Your task to perform on an android device: open app "VLC for Android" (install if not already installed) Image 0: 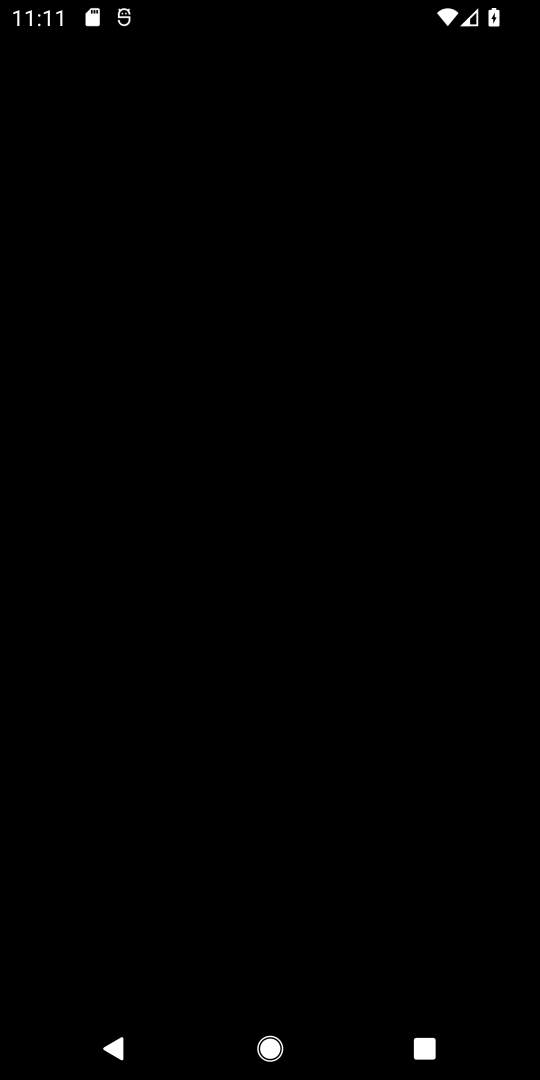
Step 0: press home button
Your task to perform on an android device: open app "VLC for Android" (install if not already installed) Image 1: 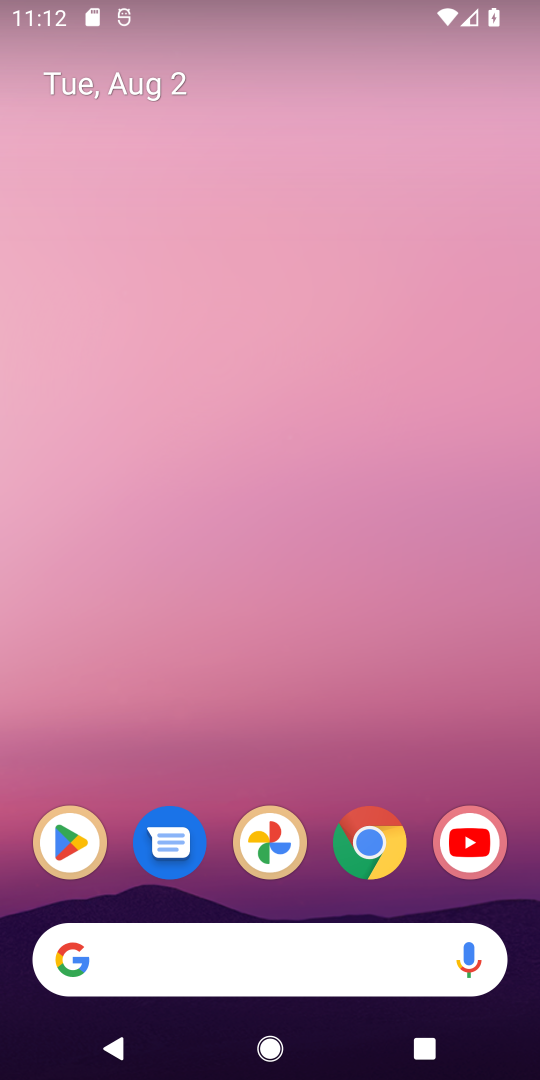
Step 1: click (108, 852)
Your task to perform on an android device: open app "VLC for Android" (install if not already installed) Image 2: 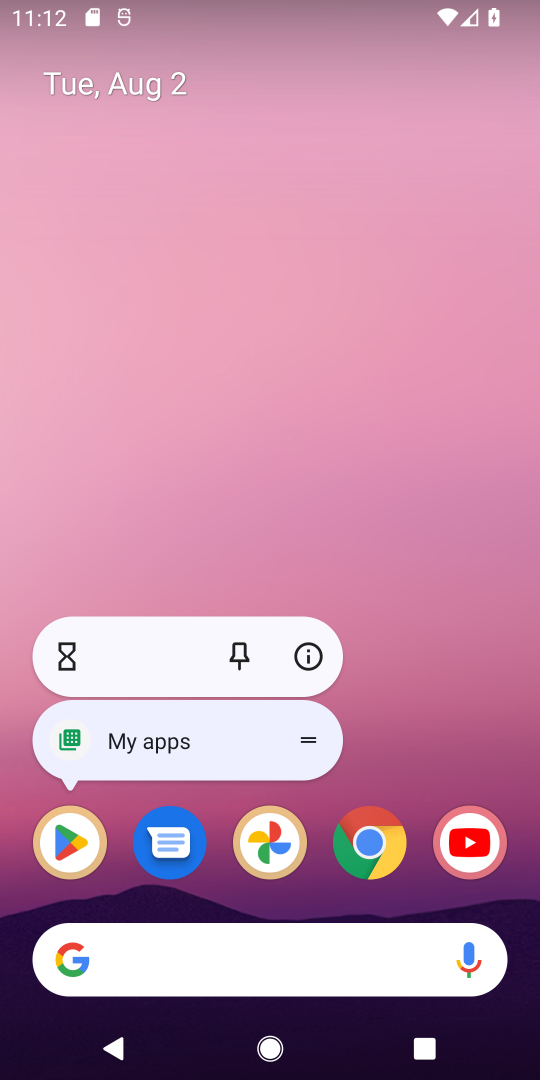
Step 2: click (97, 852)
Your task to perform on an android device: open app "VLC for Android" (install if not already installed) Image 3: 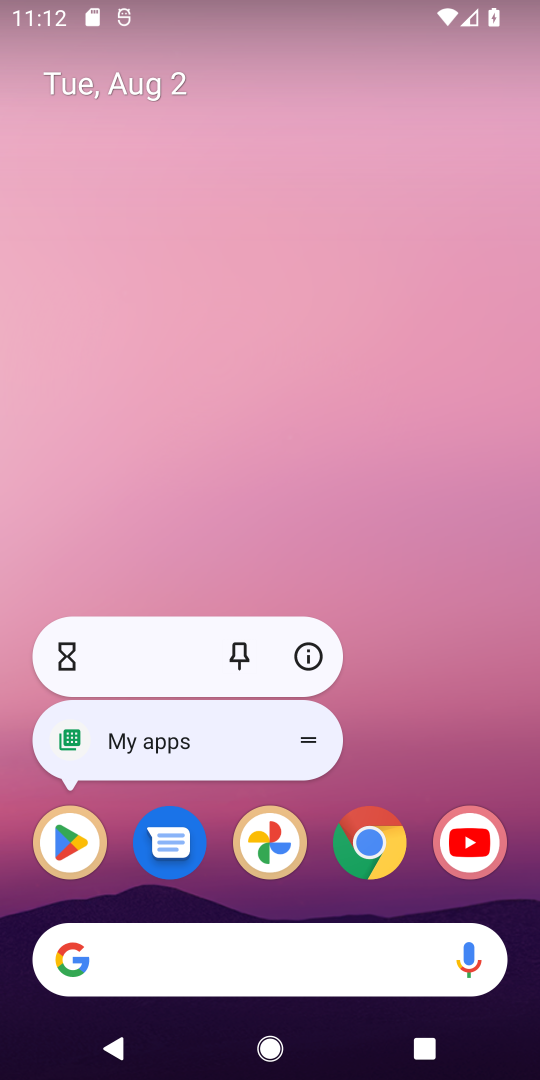
Step 3: click (97, 852)
Your task to perform on an android device: open app "VLC for Android" (install if not already installed) Image 4: 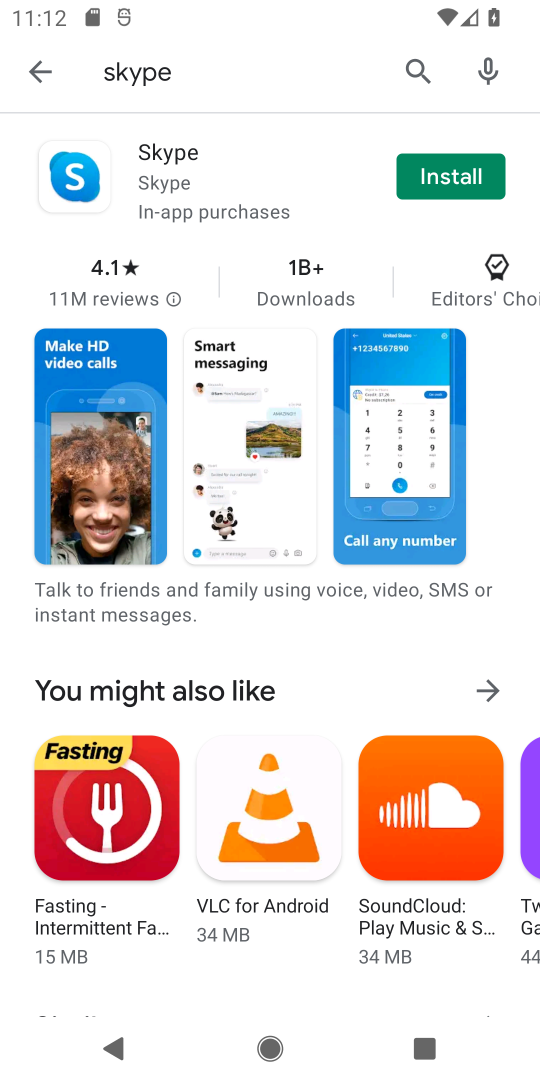
Step 4: click (425, 79)
Your task to perform on an android device: open app "VLC for Android" (install if not already installed) Image 5: 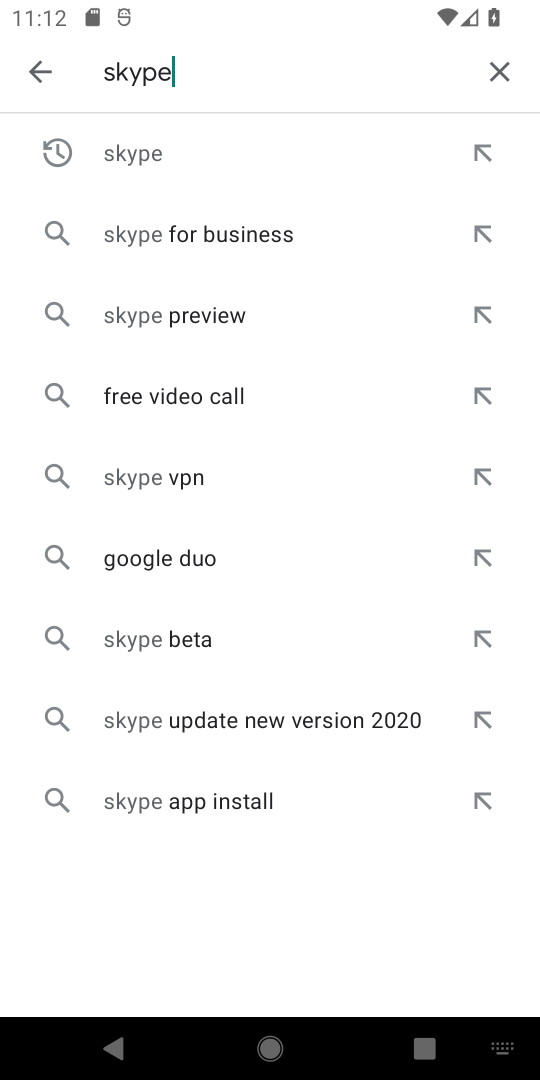
Step 5: click (517, 77)
Your task to perform on an android device: open app "VLC for Android" (install if not already installed) Image 6: 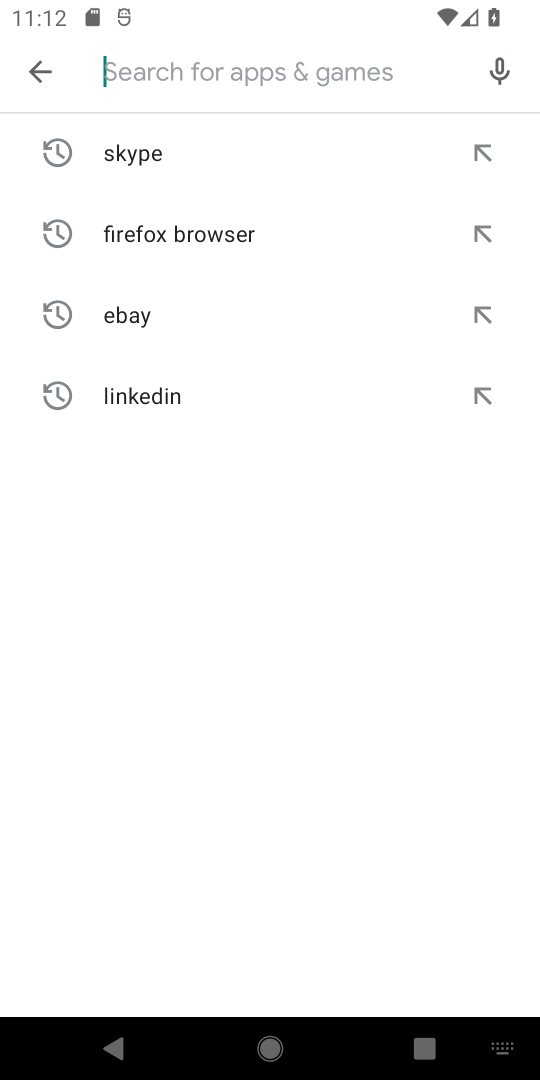
Step 6: click (315, 67)
Your task to perform on an android device: open app "VLC for Android" (install if not already installed) Image 7: 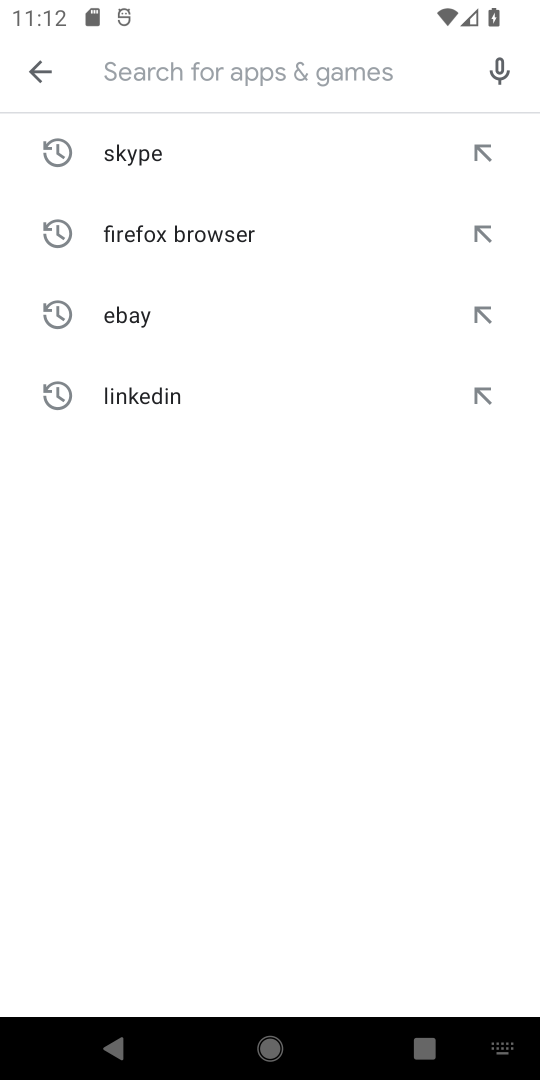
Step 7: type "VLC"
Your task to perform on an android device: open app "VLC for Android" (install if not already installed) Image 8: 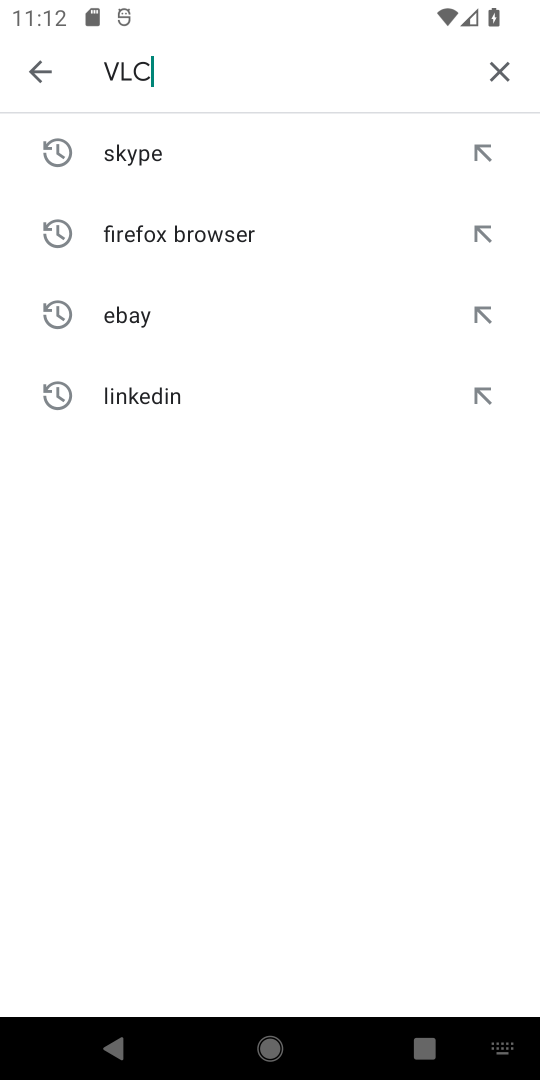
Step 8: type ""
Your task to perform on an android device: open app "VLC for Android" (install if not already installed) Image 9: 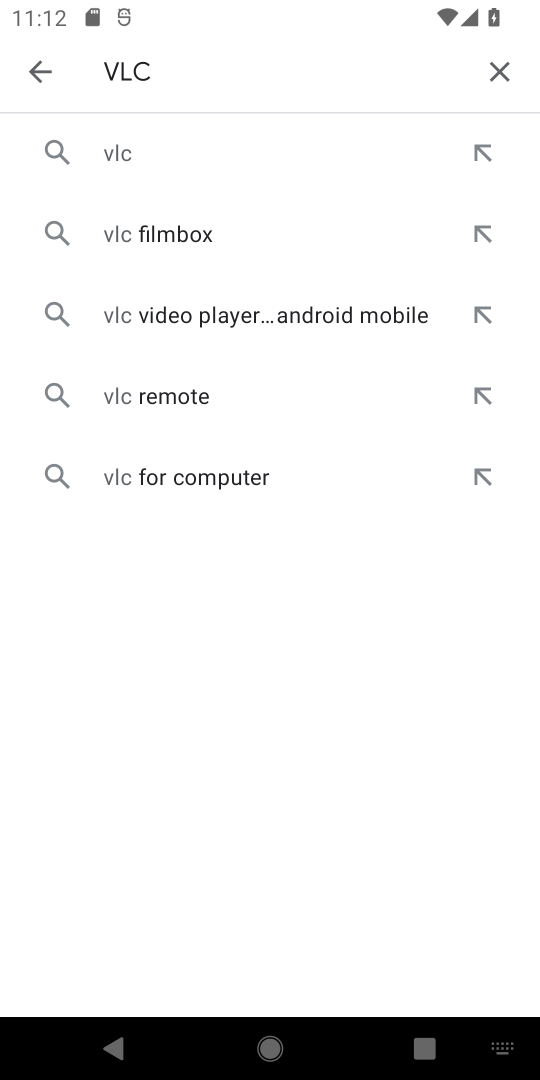
Step 9: click (101, 142)
Your task to perform on an android device: open app "VLC for Android" (install if not already installed) Image 10: 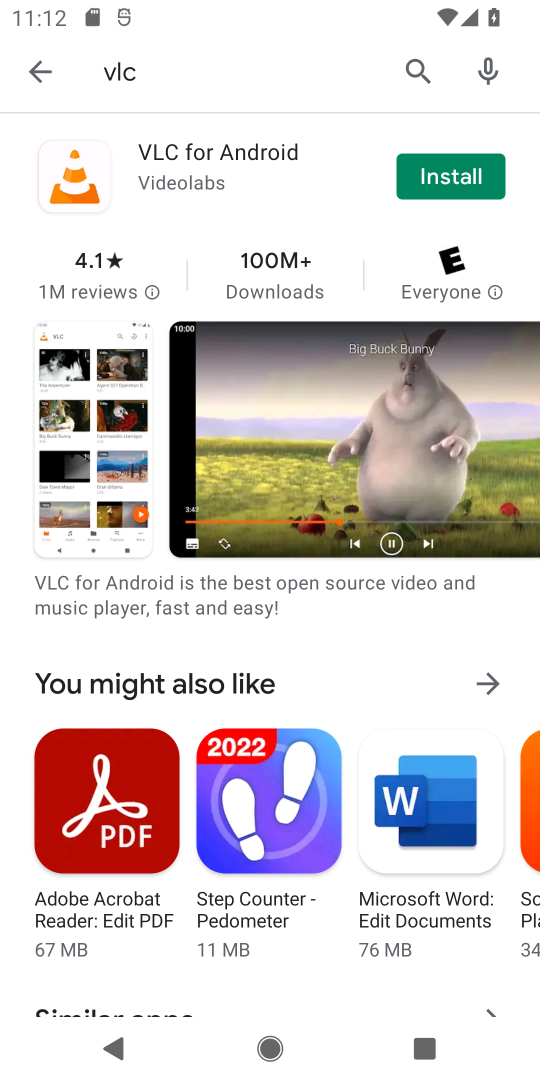
Step 10: click (458, 162)
Your task to perform on an android device: open app "VLC for Android" (install if not already installed) Image 11: 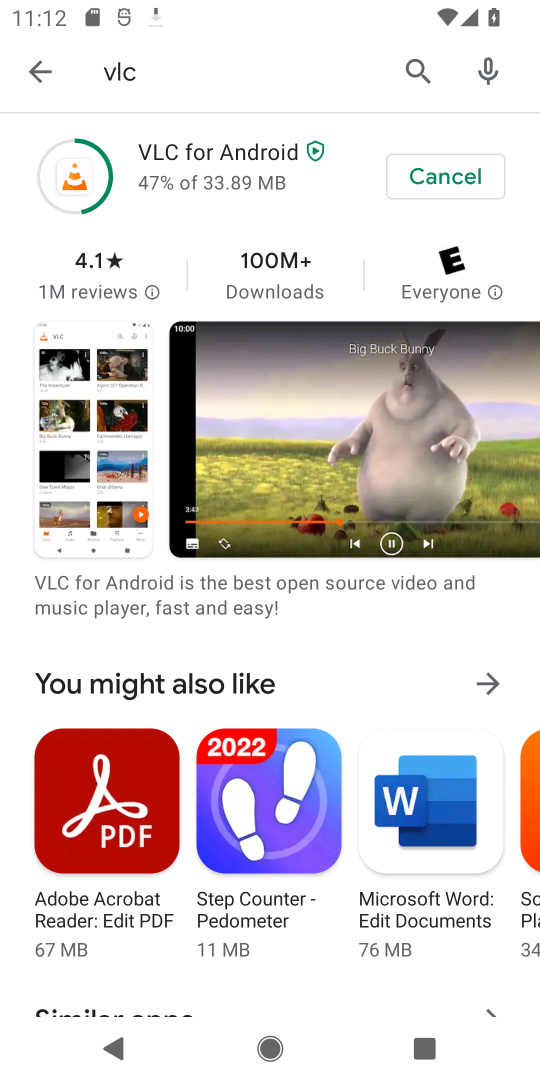
Step 11: click (258, 147)
Your task to perform on an android device: open app "VLC for Android" (install if not already installed) Image 12: 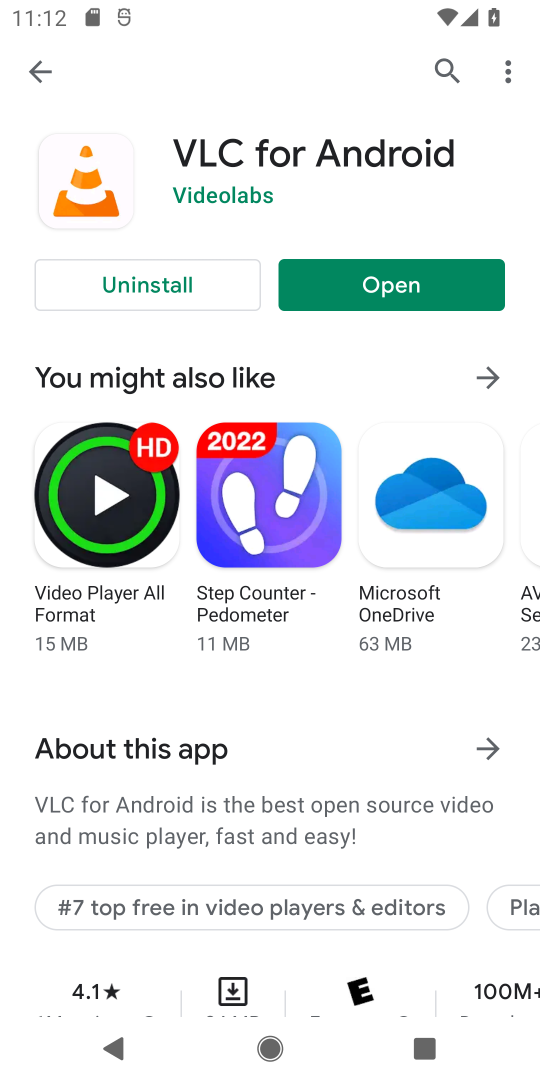
Step 12: click (400, 305)
Your task to perform on an android device: open app "VLC for Android" (install if not already installed) Image 13: 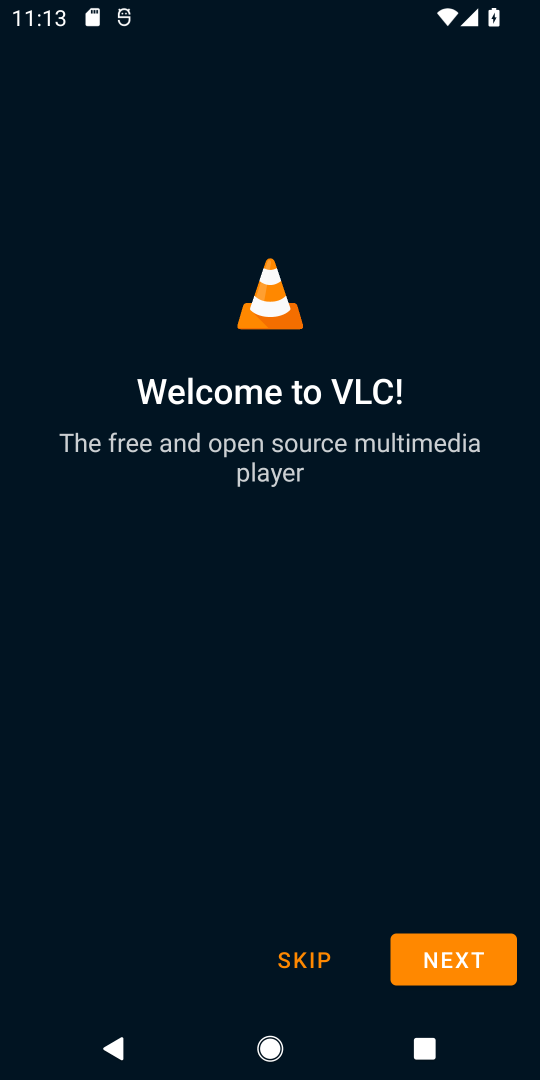
Step 13: task complete